Your task to perform on an android device: Open the Play Movies app and select the watchlist tab. Image 0: 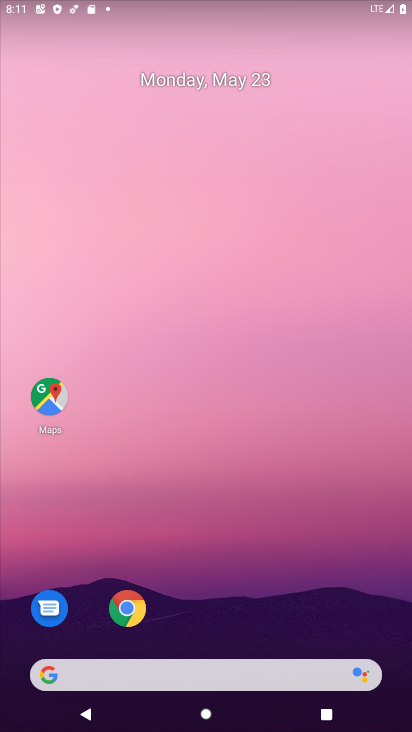
Step 0: drag from (198, 658) to (162, 183)
Your task to perform on an android device: Open the Play Movies app and select the watchlist tab. Image 1: 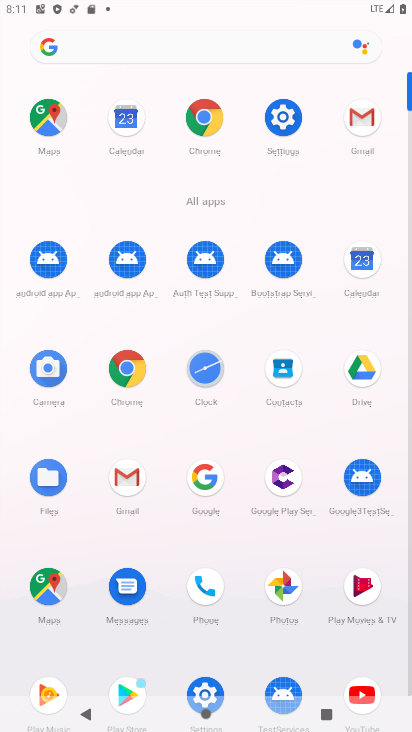
Step 1: click (370, 583)
Your task to perform on an android device: Open the Play Movies app and select the watchlist tab. Image 2: 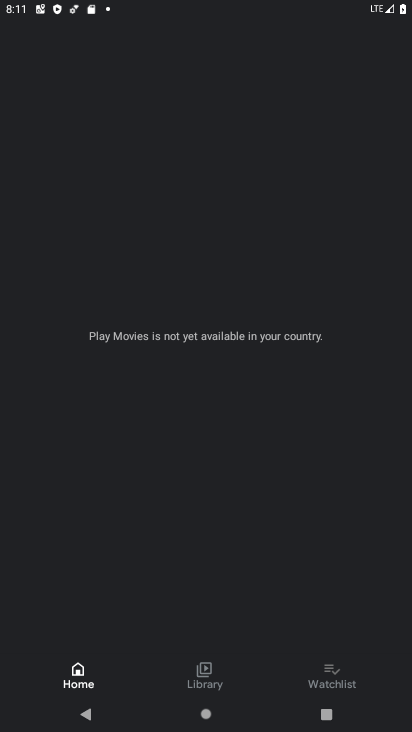
Step 2: click (340, 671)
Your task to perform on an android device: Open the Play Movies app and select the watchlist tab. Image 3: 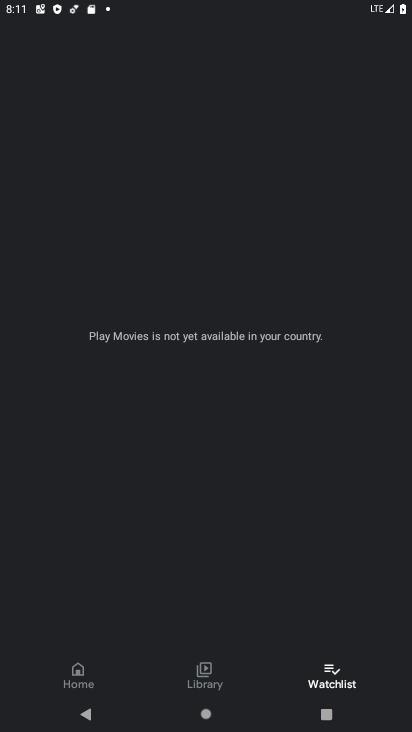
Step 3: task complete